Your task to perform on an android device: Open the phone app and click the voicemail tab. Image 0: 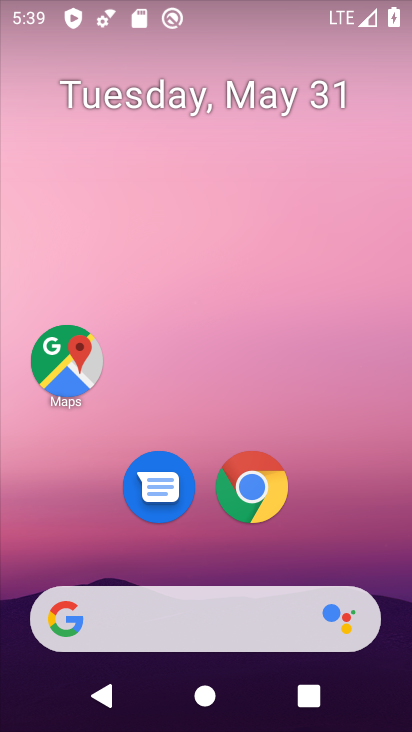
Step 0: drag from (351, 526) to (269, 80)
Your task to perform on an android device: Open the phone app and click the voicemail tab. Image 1: 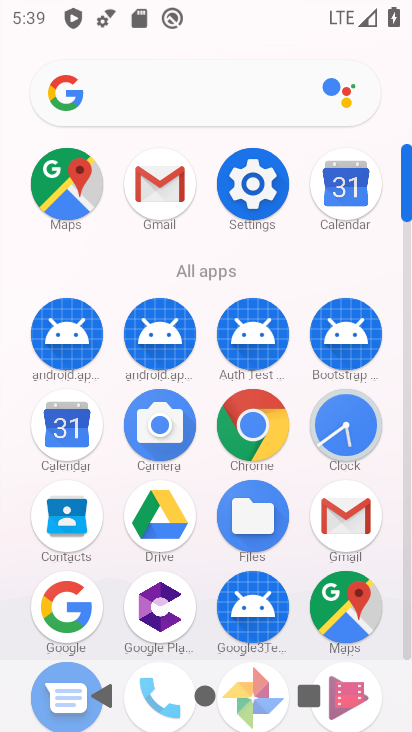
Step 1: drag from (203, 566) to (204, 150)
Your task to perform on an android device: Open the phone app and click the voicemail tab. Image 2: 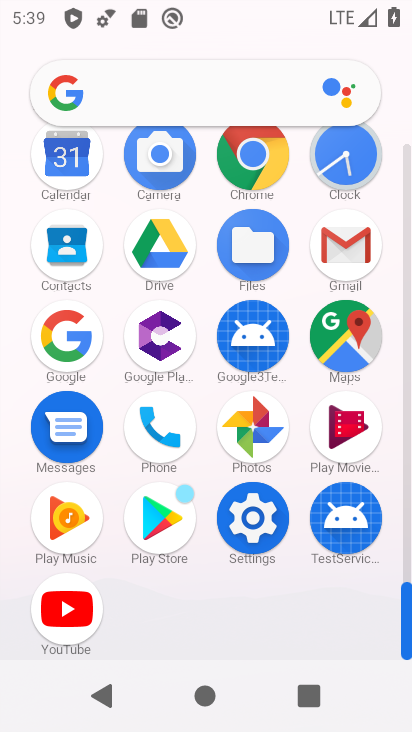
Step 2: click (151, 432)
Your task to perform on an android device: Open the phone app and click the voicemail tab. Image 3: 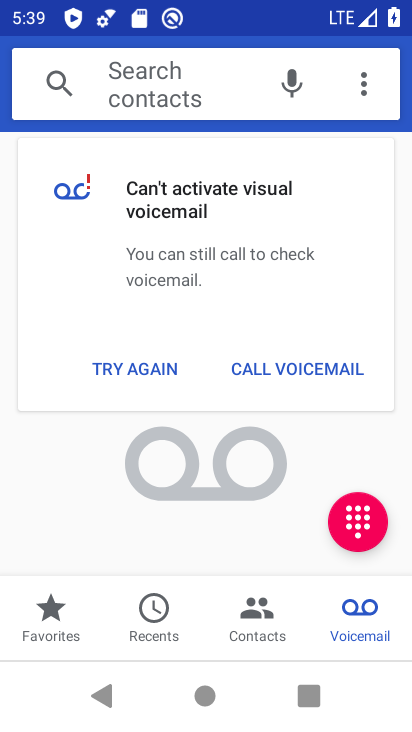
Step 3: click (358, 629)
Your task to perform on an android device: Open the phone app and click the voicemail tab. Image 4: 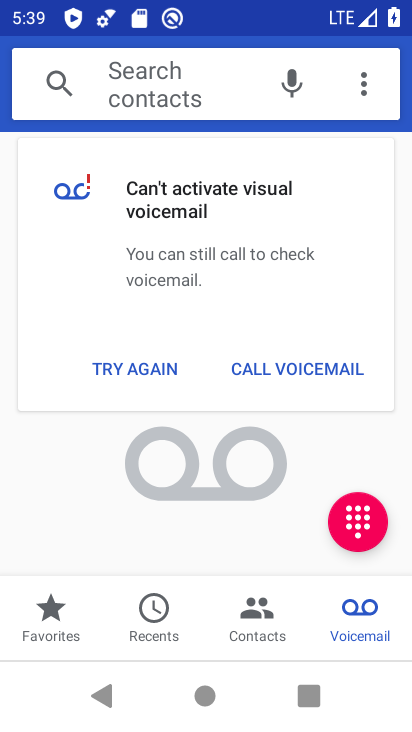
Step 4: task complete